Your task to perform on an android device: What's the price of the LG TV? Image 0: 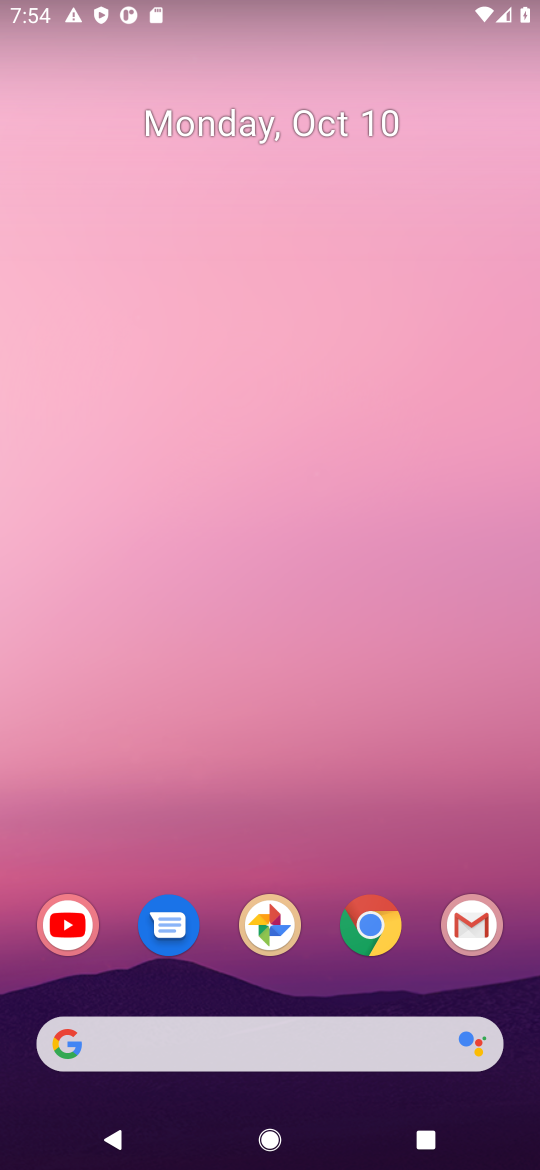
Step 0: drag from (206, 969) to (372, 84)
Your task to perform on an android device: What's the price of the LG TV? Image 1: 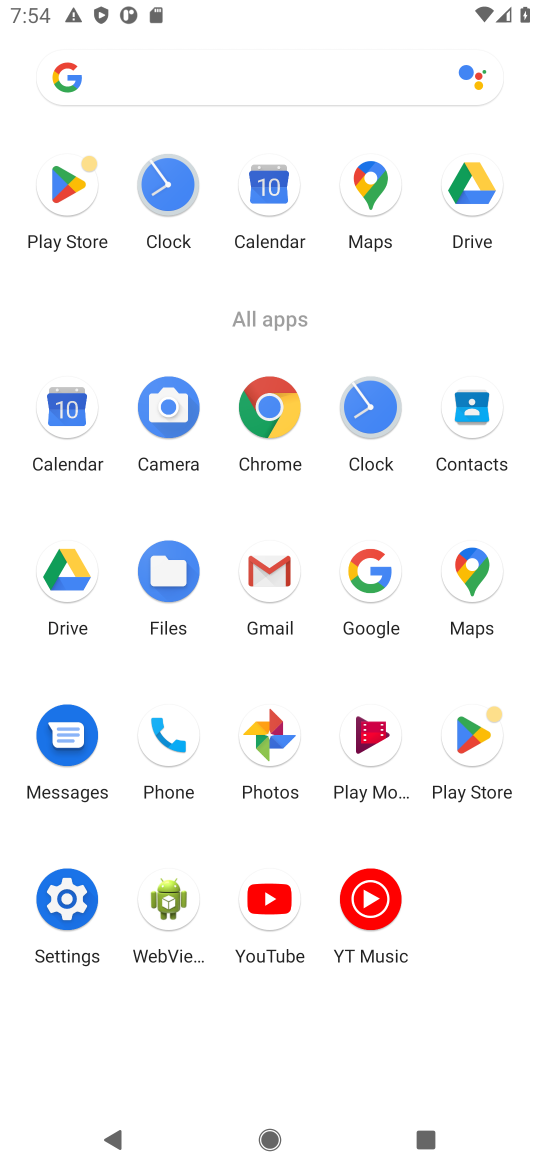
Step 1: click (257, 406)
Your task to perform on an android device: What's the price of the LG TV? Image 2: 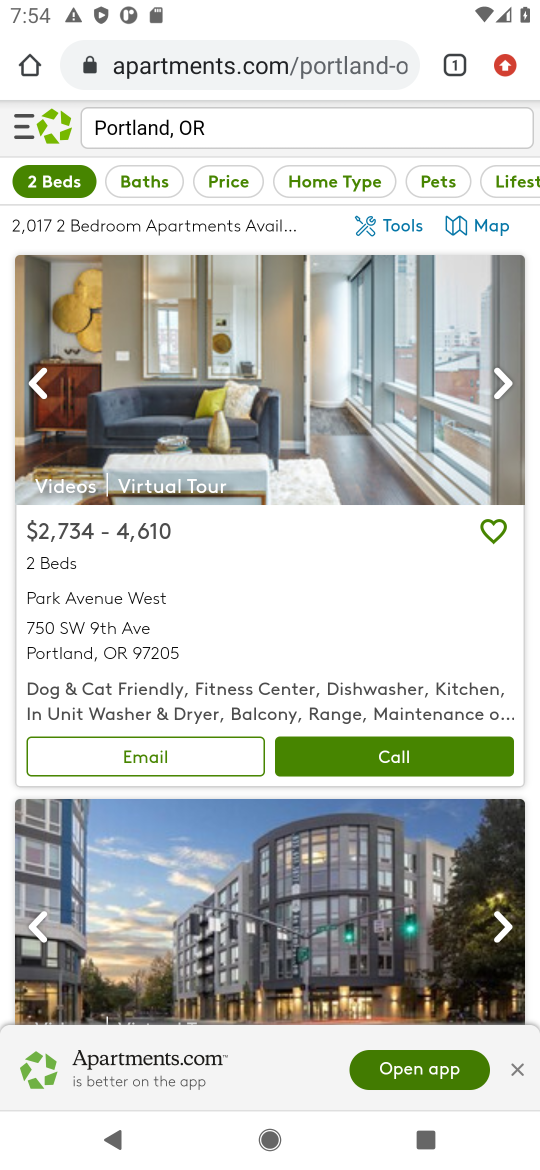
Step 2: click (234, 61)
Your task to perform on an android device: What's the price of the LG TV? Image 3: 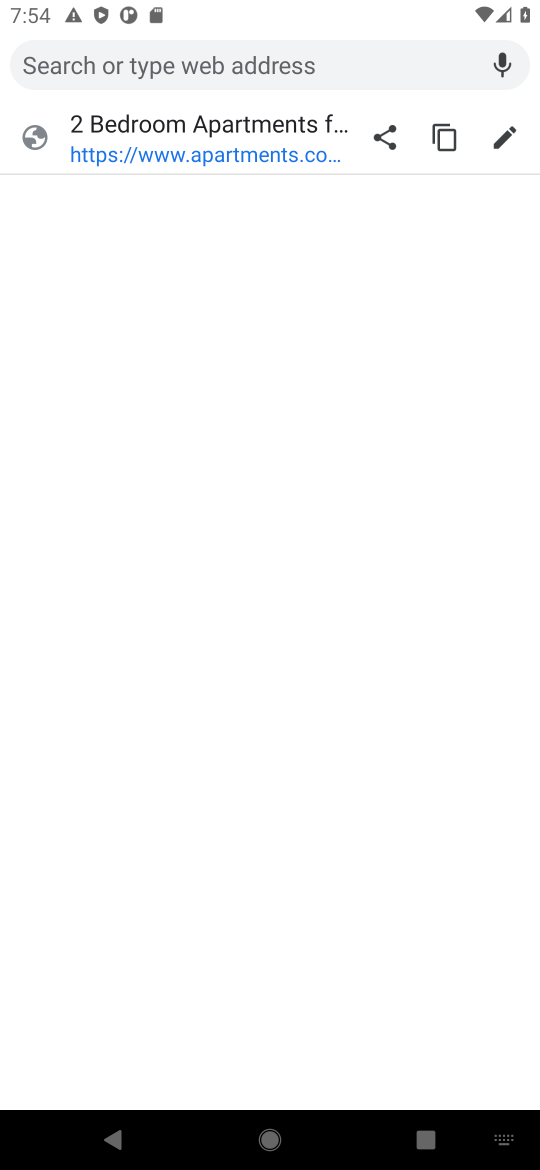
Step 3: type "What's the price of the LG TV"
Your task to perform on an android device: What's the price of the LG TV? Image 4: 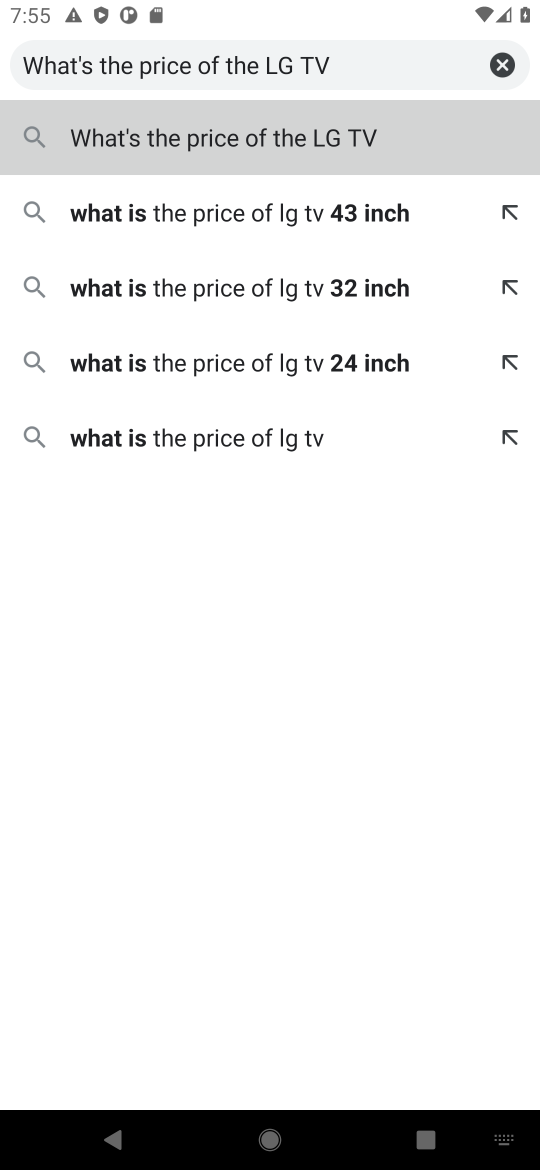
Step 4: type "?"
Your task to perform on an android device: What's the price of the LG TV? Image 5: 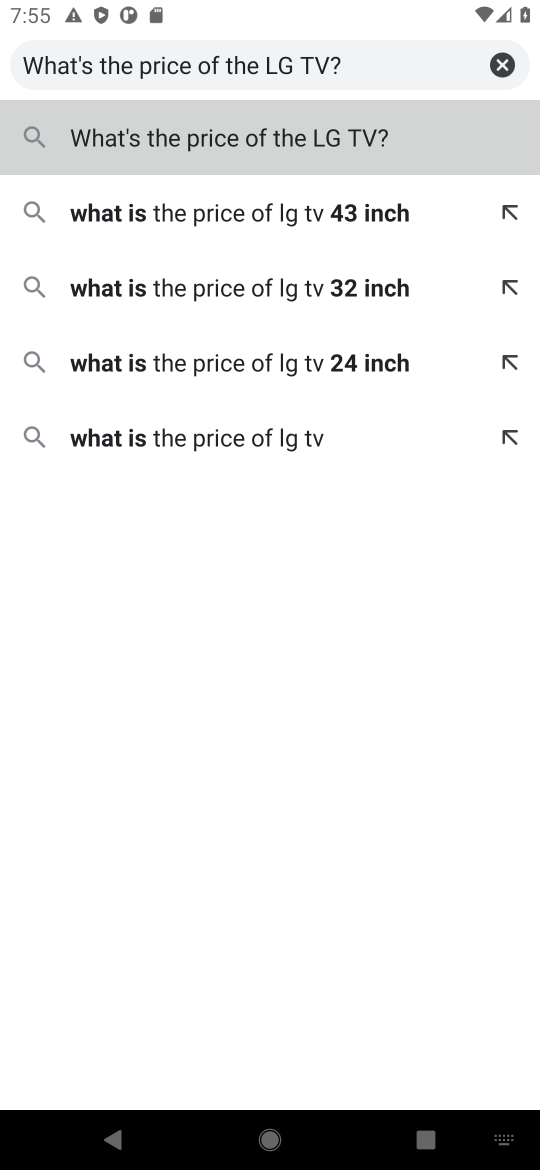
Step 5: press enter
Your task to perform on an android device: What's the price of the LG TV? Image 6: 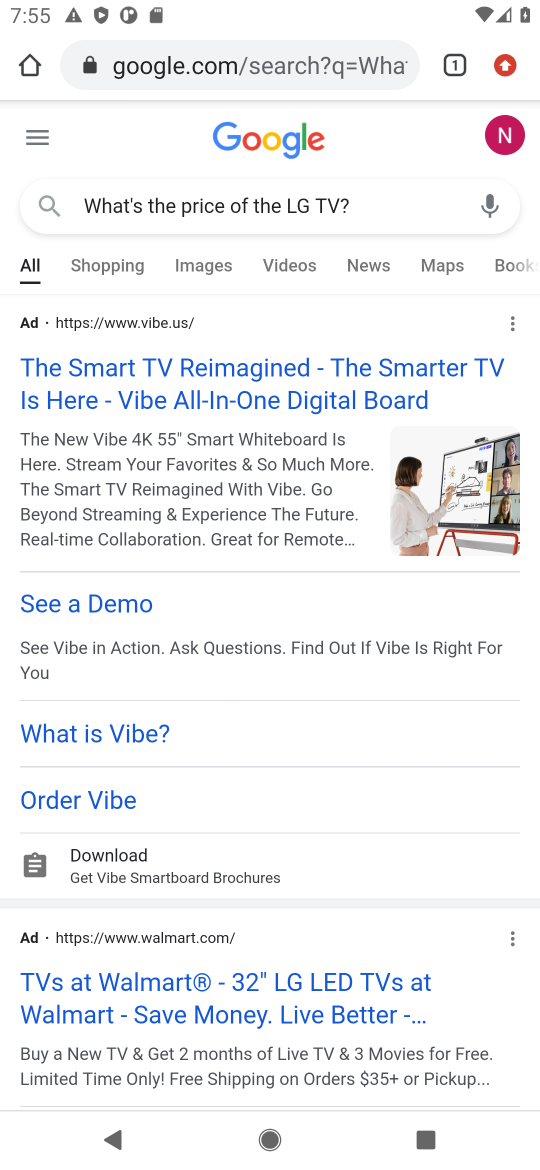
Step 6: task complete